Your task to perform on an android device: Go to network settings Image 0: 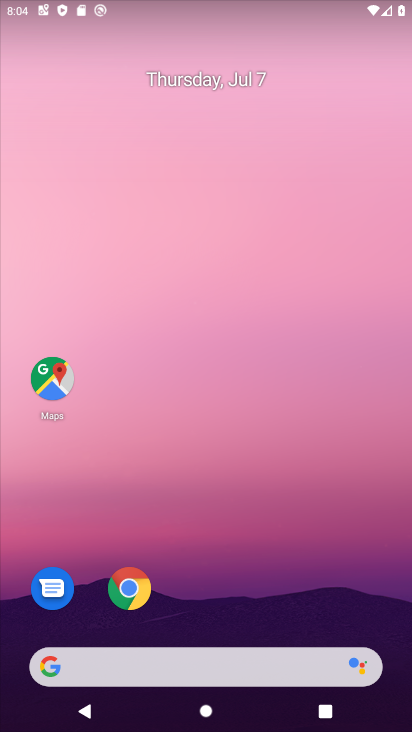
Step 0: drag from (223, 555) to (273, 251)
Your task to perform on an android device: Go to network settings Image 1: 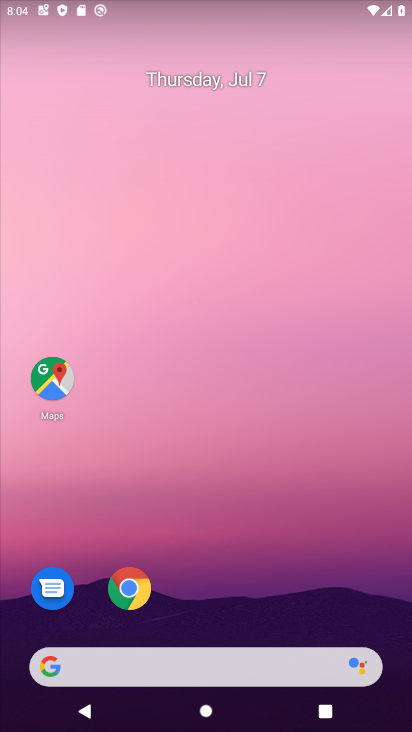
Step 1: drag from (232, 497) to (188, 64)
Your task to perform on an android device: Go to network settings Image 2: 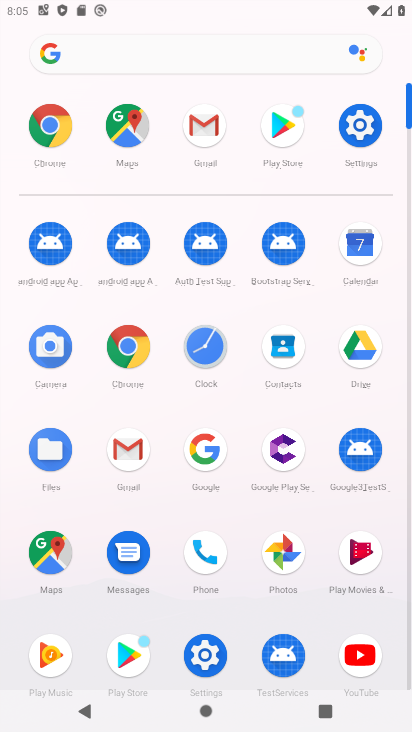
Step 2: drag from (152, 497) to (149, 229)
Your task to perform on an android device: Go to network settings Image 3: 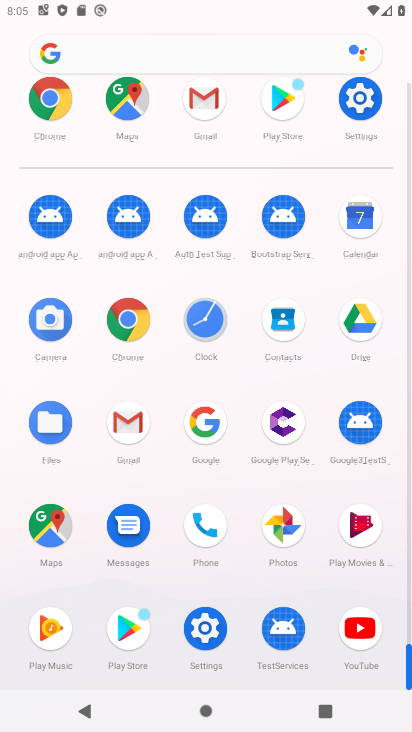
Step 3: click (206, 642)
Your task to perform on an android device: Go to network settings Image 4: 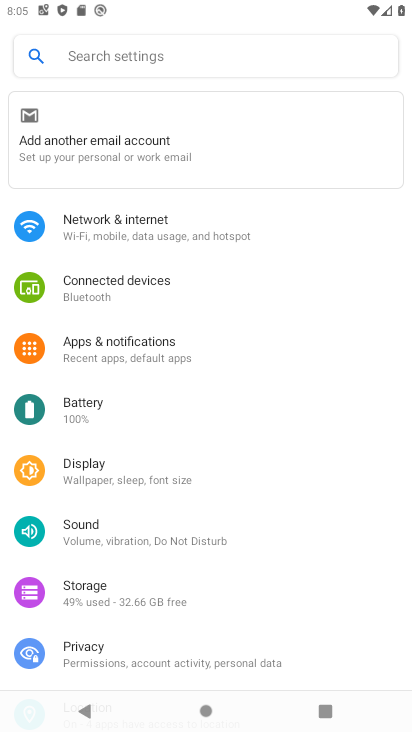
Step 4: click (188, 225)
Your task to perform on an android device: Go to network settings Image 5: 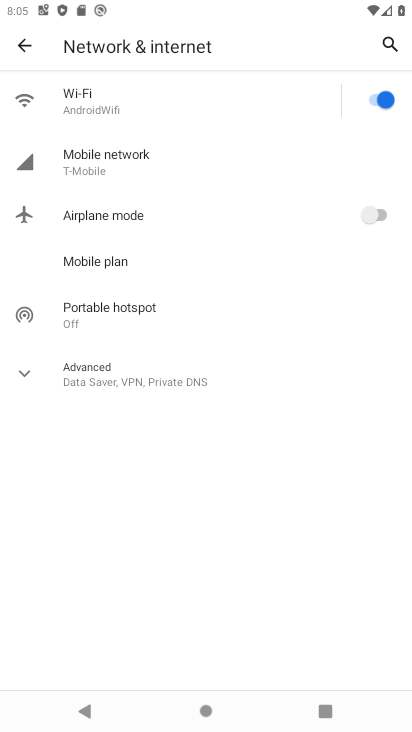
Step 5: task complete